Your task to perform on an android device: What's the weather going to be this weekend? Image 0: 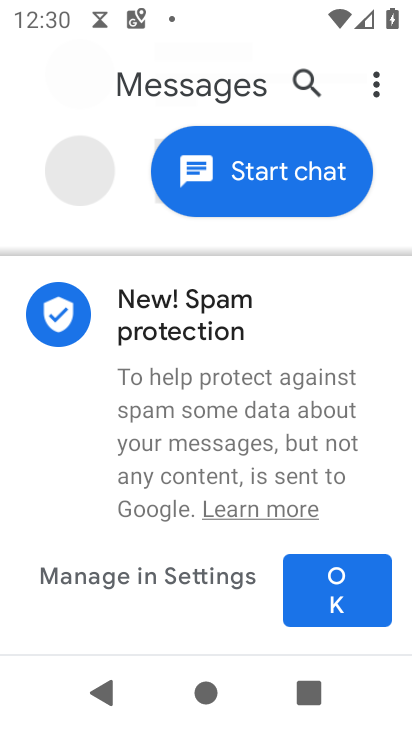
Step 0: press home button
Your task to perform on an android device: What's the weather going to be this weekend? Image 1: 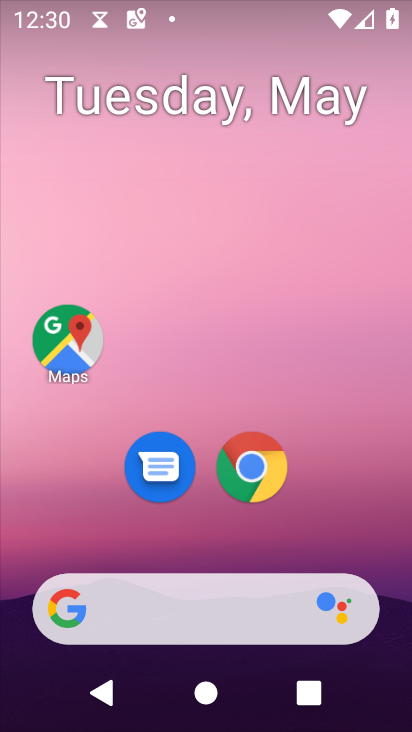
Step 1: click (211, 589)
Your task to perform on an android device: What's the weather going to be this weekend? Image 2: 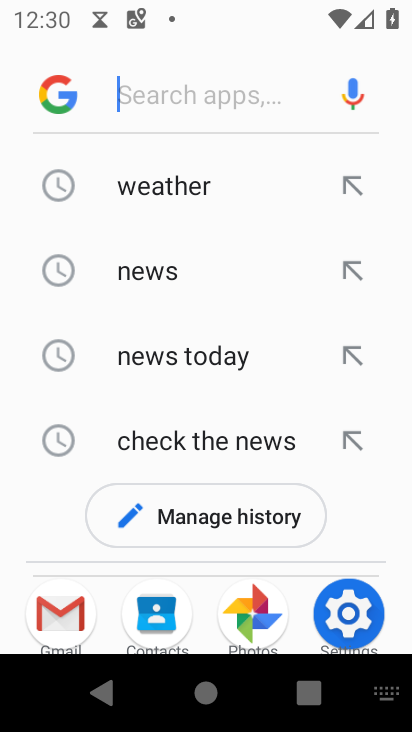
Step 2: click (197, 188)
Your task to perform on an android device: What's the weather going to be this weekend? Image 3: 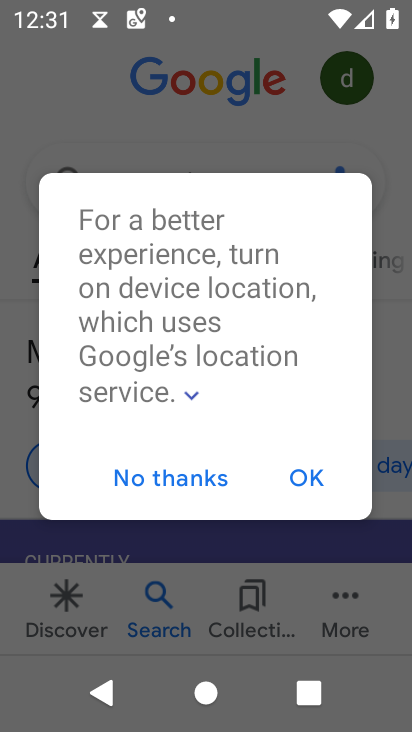
Step 3: click (296, 475)
Your task to perform on an android device: What's the weather going to be this weekend? Image 4: 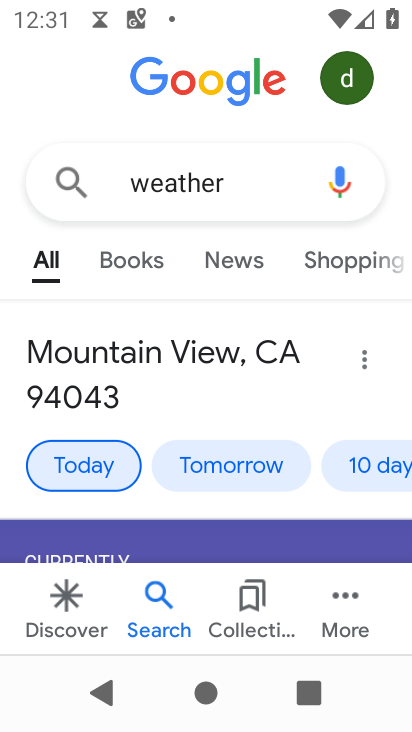
Step 4: click (357, 465)
Your task to perform on an android device: What's the weather going to be this weekend? Image 5: 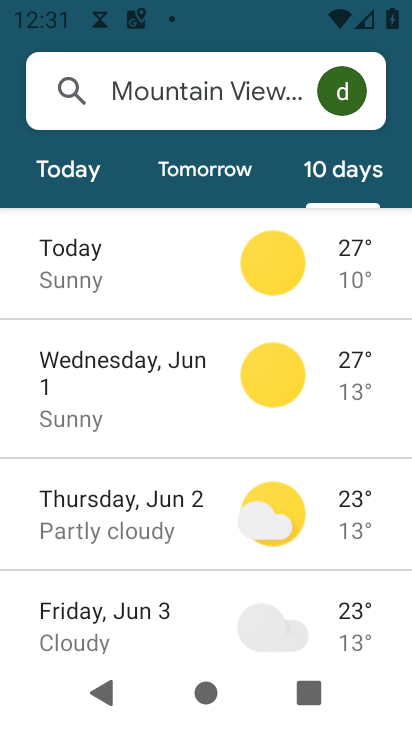
Step 5: task complete